Your task to perform on an android device: Open wifi settings Image 0: 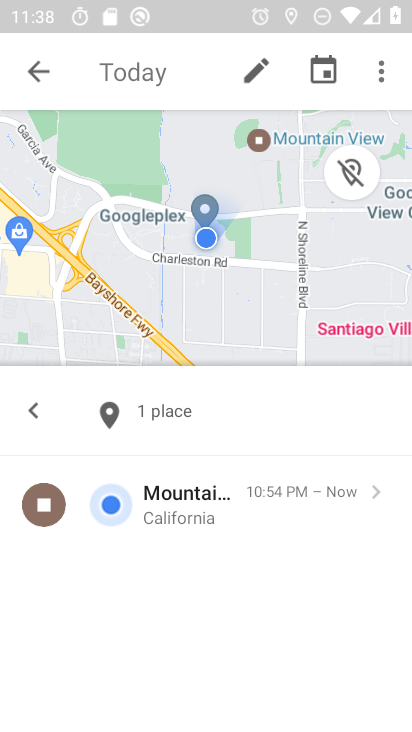
Step 0: press home button
Your task to perform on an android device: Open wifi settings Image 1: 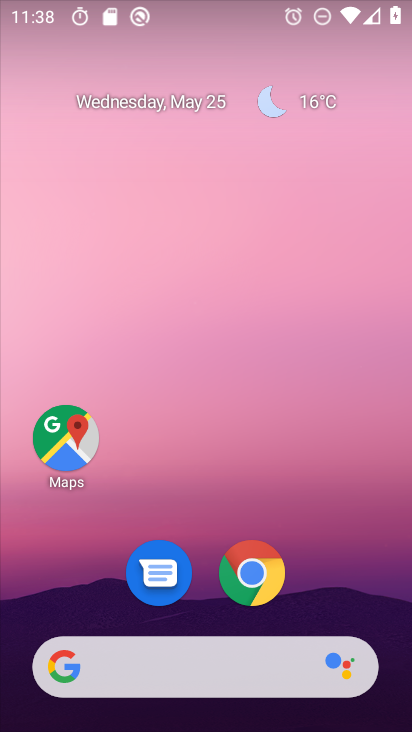
Step 1: click (384, 1)
Your task to perform on an android device: Open wifi settings Image 2: 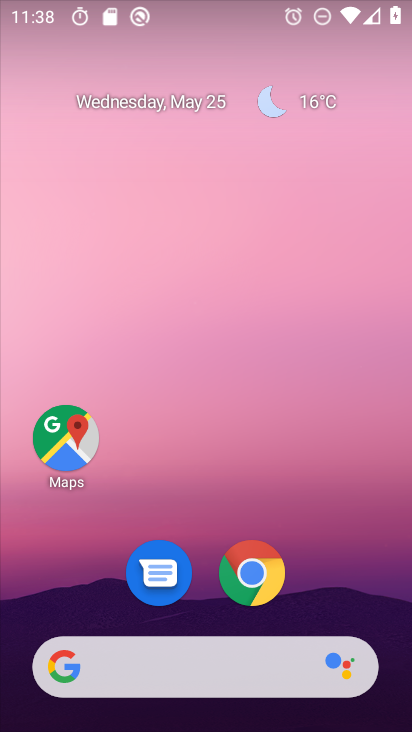
Step 2: drag from (342, 614) to (384, 1)
Your task to perform on an android device: Open wifi settings Image 3: 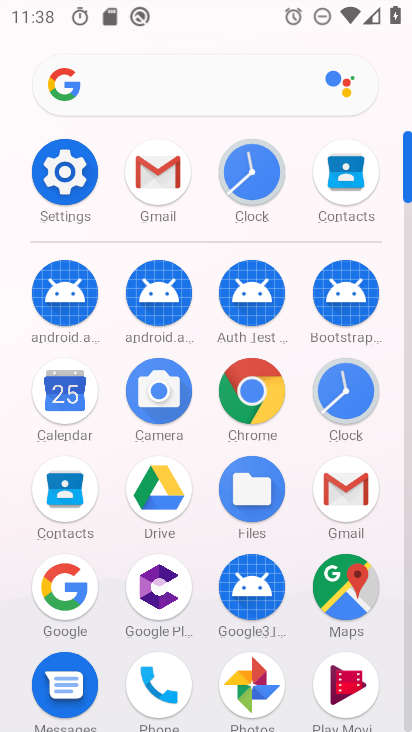
Step 3: click (60, 179)
Your task to perform on an android device: Open wifi settings Image 4: 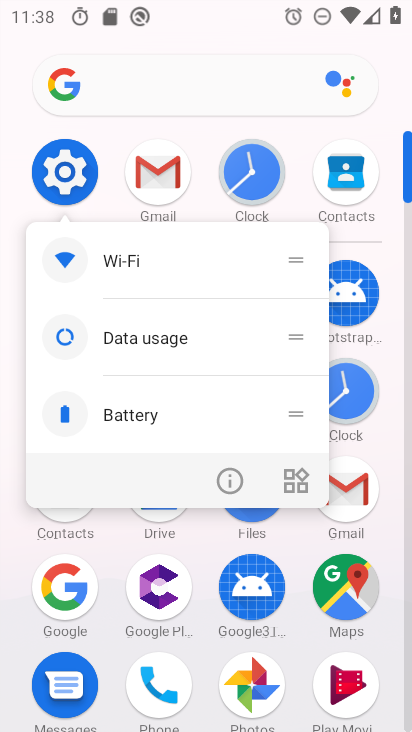
Step 4: click (84, 262)
Your task to perform on an android device: Open wifi settings Image 5: 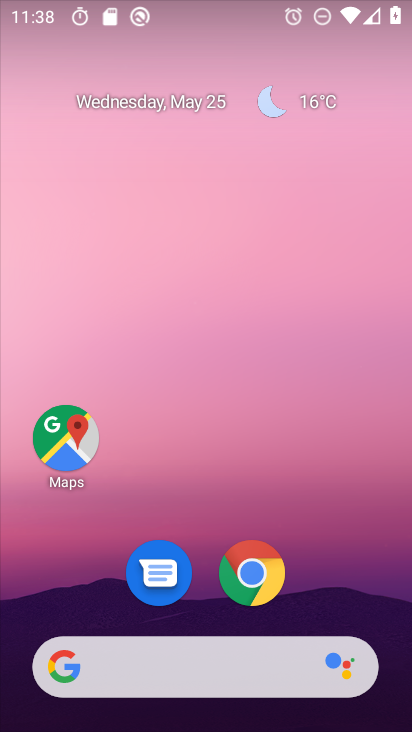
Step 5: drag from (357, 619) to (347, 13)
Your task to perform on an android device: Open wifi settings Image 6: 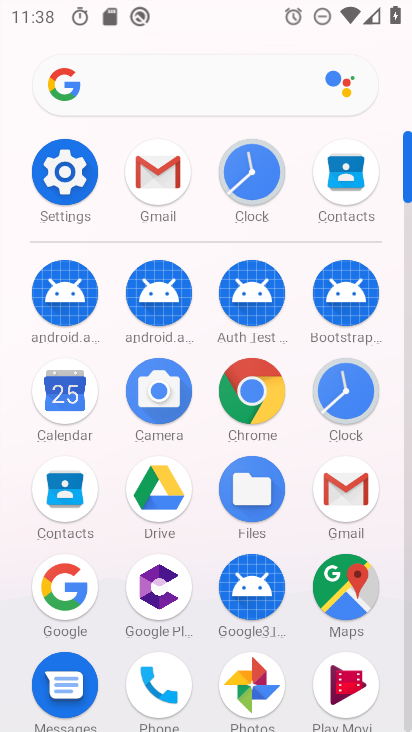
Step 6: click (66, 179)
Your task to perform on an android device: Open wifi settings Image 7: 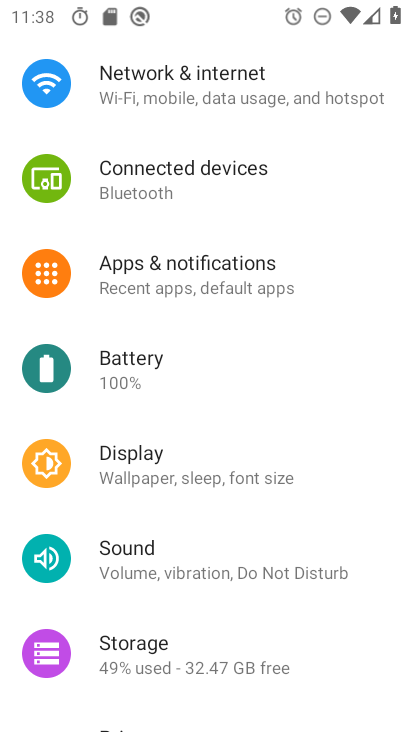
Step 7: click (135, 92)
Your task to perform on an android device: Open wifi settings Image 8: 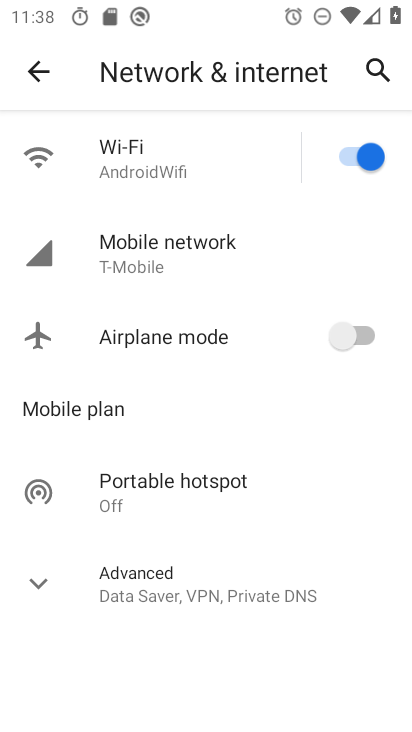
Step 8: click (69, 169)
Your task to perform on an android device: Open wifi settings Image 9: 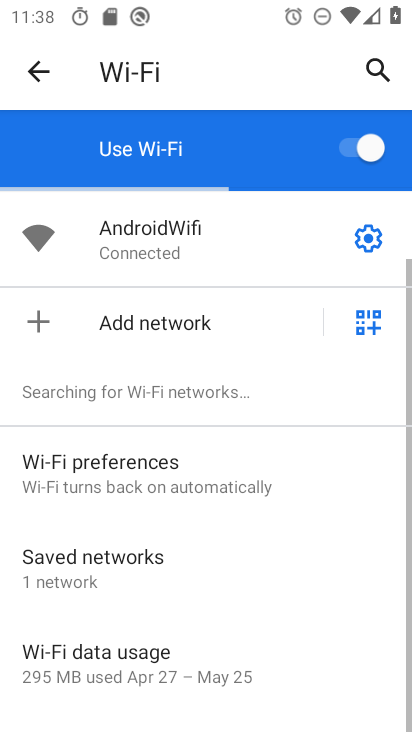
Step 9: task complete